Your task to perform on an android device: Open Google Image 0: 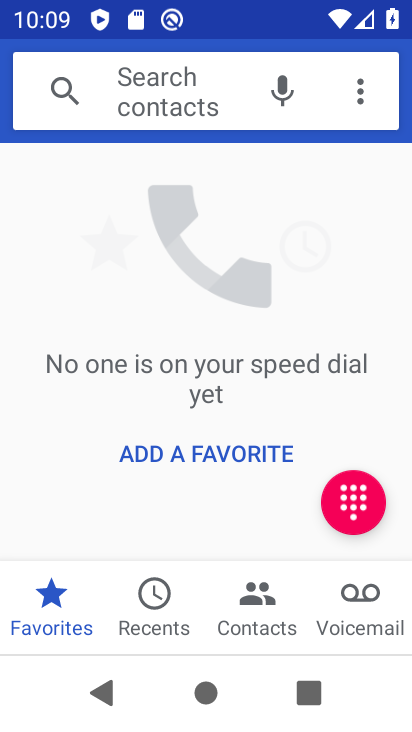
Step 0: press back button
Your task to perform on an android device: Open Google Image 1: 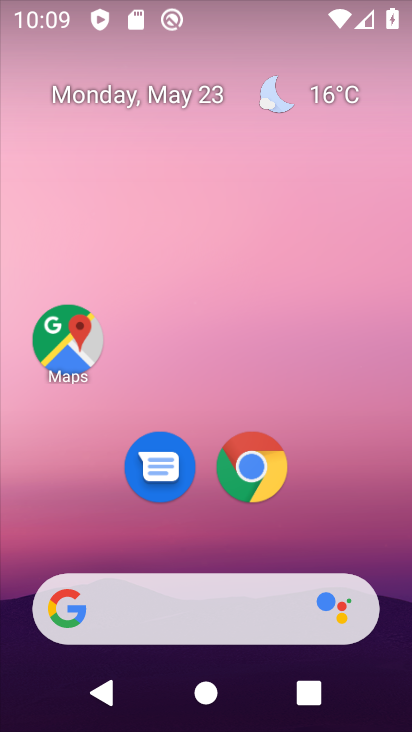
Step 1: drag from (289, 710) to (216, 206)
Your task to perform on an android device: Open Google Image 2: 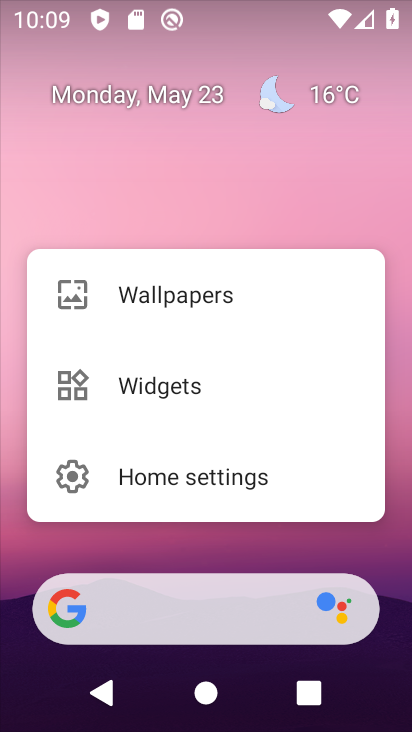
Step 2: click (76, 181)
Your task to perform on an android device: Open Google Image 3: 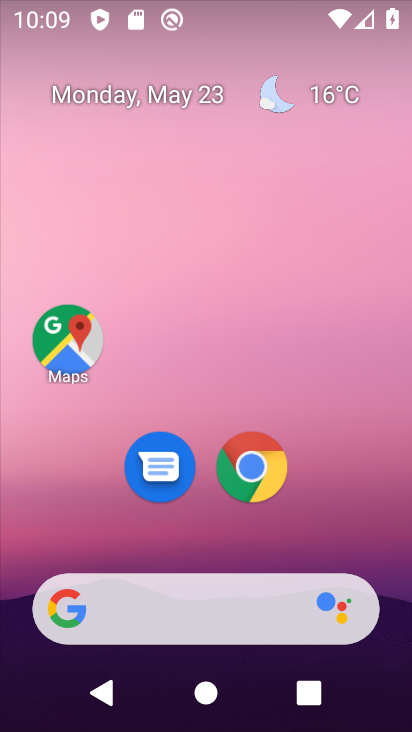
Step 3: drag from (215, 582) to (154, 171)
Your task to perform on an android device: Open Google Image 4: 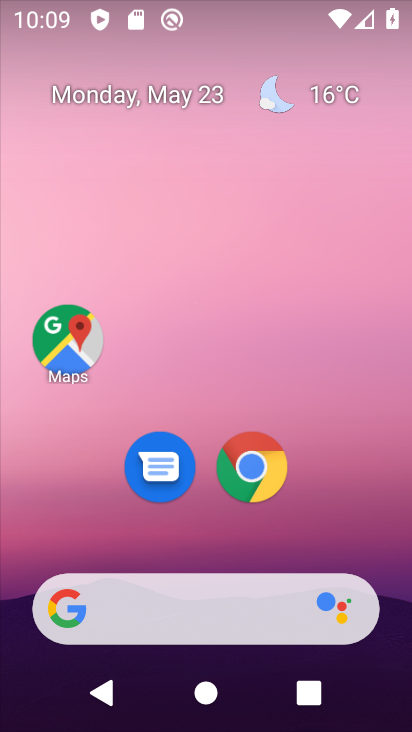
Step 4: drag from (163, 103) to (177, 66)
Your task to perform on an android device: Open Google Image 5: 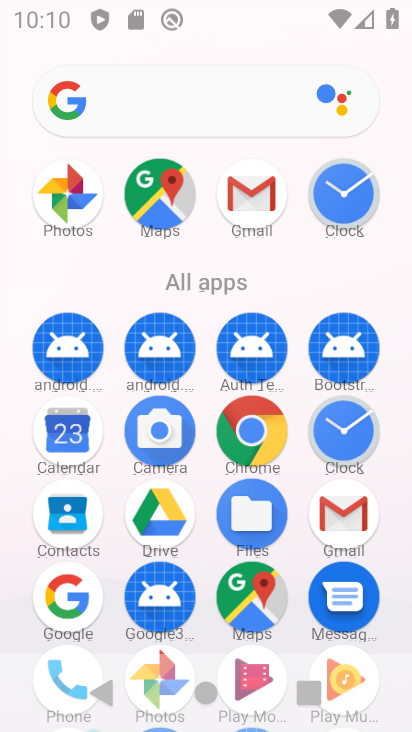
Step 5: drag from (253, 623) to (209, 151)
Your task to perform on an android device: Open Google Image 6: 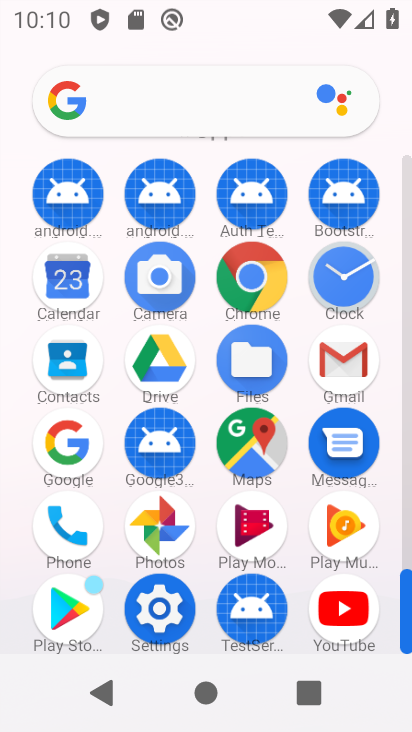
Step 6: click (65, 455)
Your task to perform on an android device: Open Google Image 7: 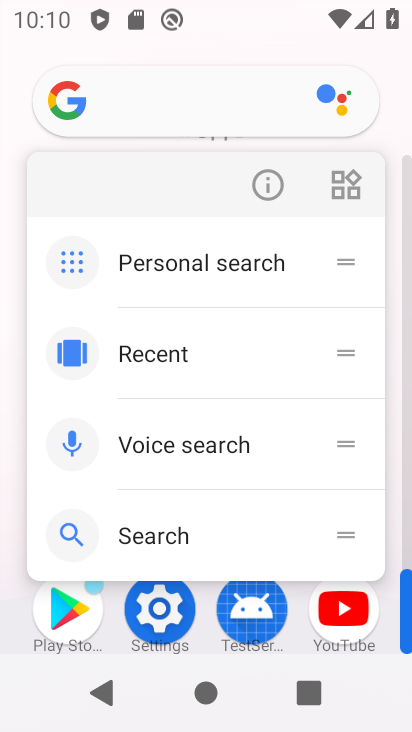
Step 7: click (258, 188)
Your task to perform on an android device: Open Google Image 8: 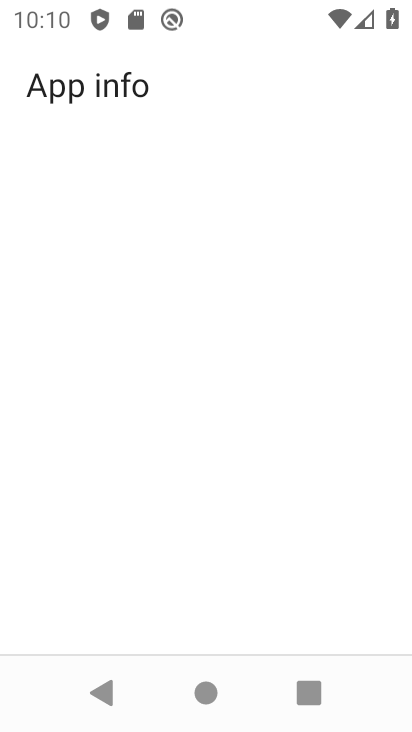
Step 8: press back button
Your task to perform on an android device: Open Google Image 9: 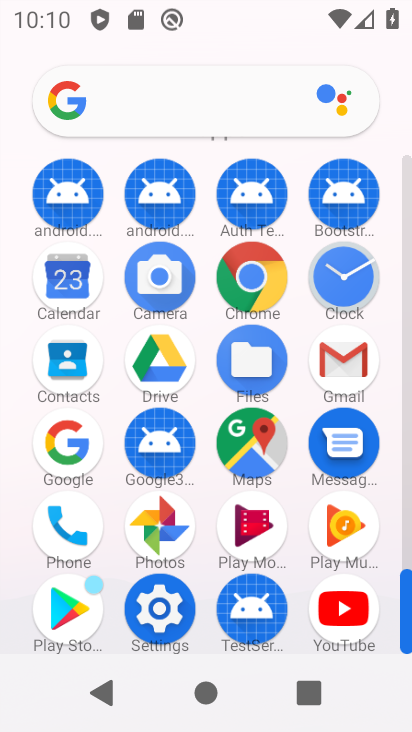
Step 9: click (68, 458)
Your task to perform on an android device: Open Google Image 10: 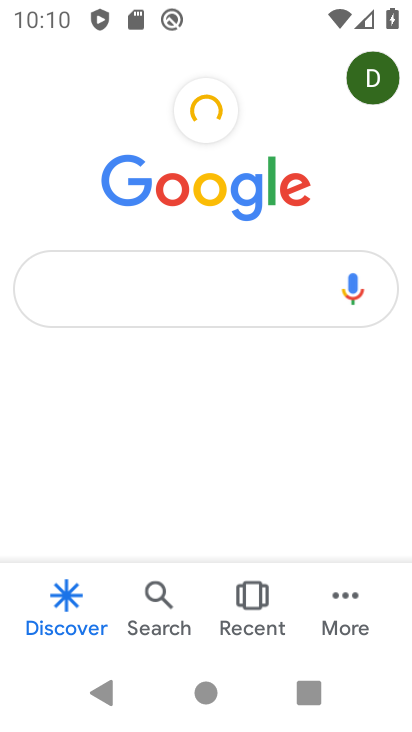
Step 10: task complete